Your task to perform on an android device: clear all cookies in the chrome app Image 0: 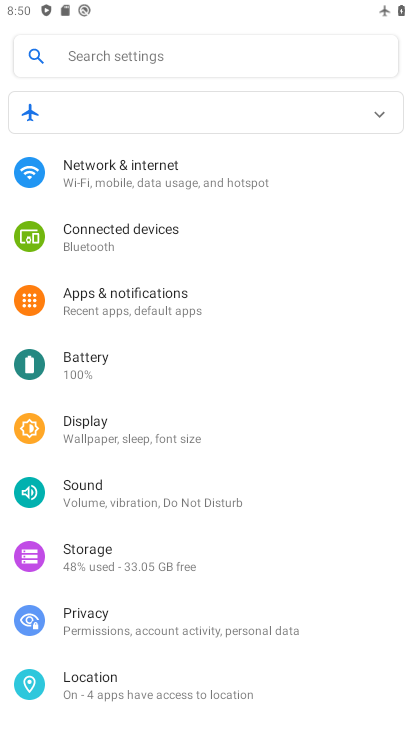
Step 0: press home button
Your task to perform on an android device: clear all cookies in the chrome app Image 1: 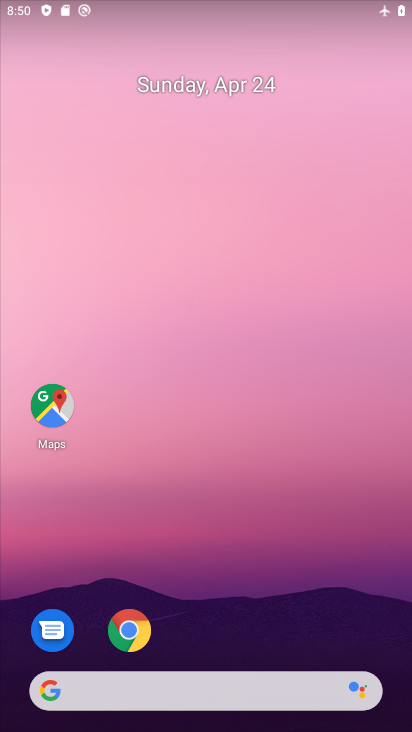
Step 1: click (123, 630)
Your task to perform on an android device: clear all cookies in the chrome app Image 2: 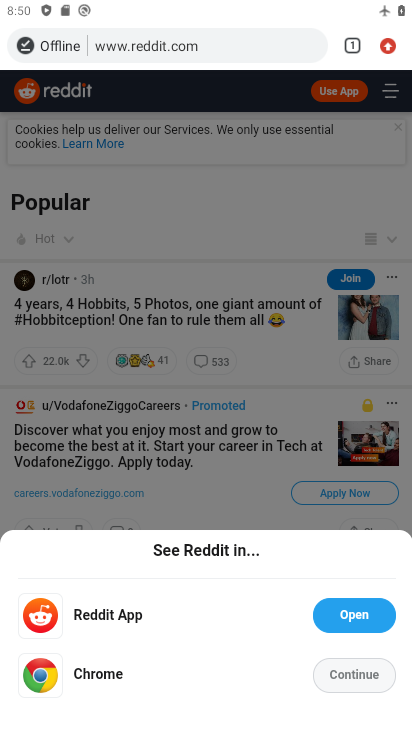
Step 2: click (388, 44)
Your task to perform on an android device: clear all cookies in the chrome app Image 3: 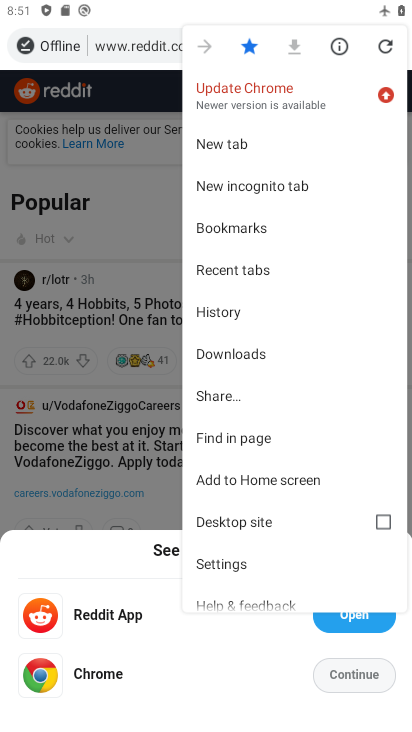
Step 3: click (253, 309)
Your task to perform on an android device: clear all cookies in the chrome app Image 4: 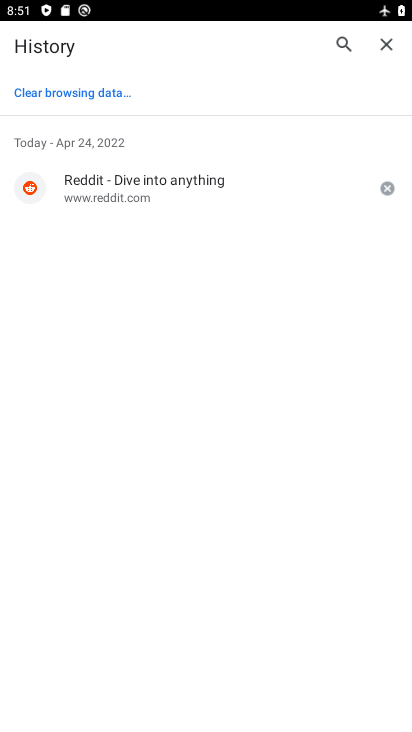
Step 4: click (112, 91)
Your task to perform on an android device: clear all cookies in the chrome app Image 5: 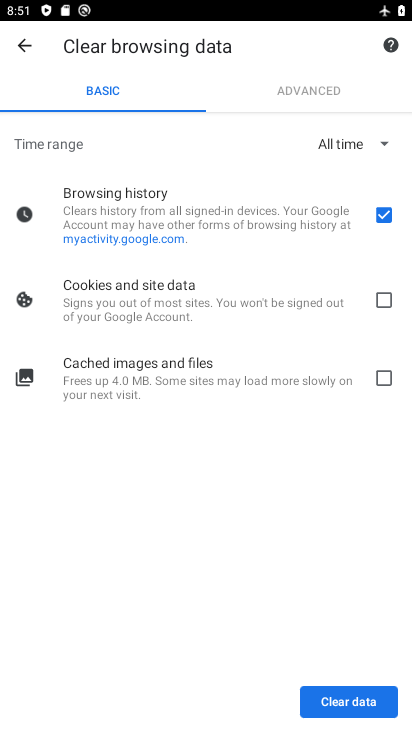
Step 5: click (385, 305)
Your task to perform on an android device: clear all cookies in the chrome app Image 6: 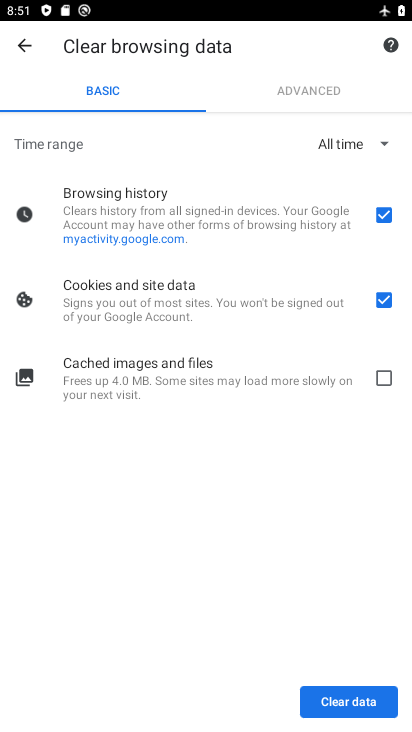
Step 6: click (383, 224)
Your task to perform on an android device: clear all cookies in the chrome app Image 7: 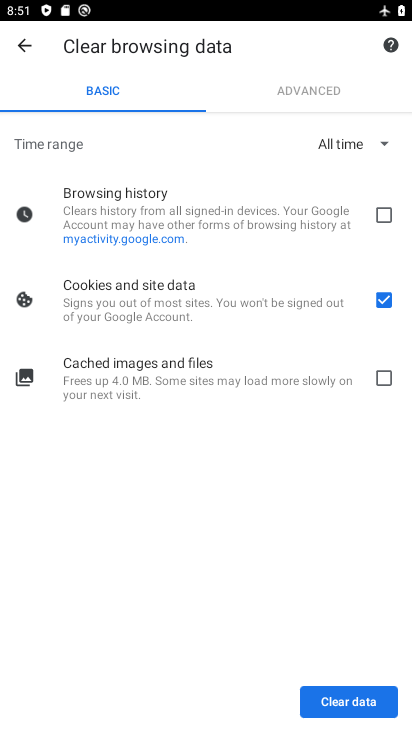
Step 7: click (350, 704)
Your task to perform on an android device: clear all cookies in the chrome app Image 8: 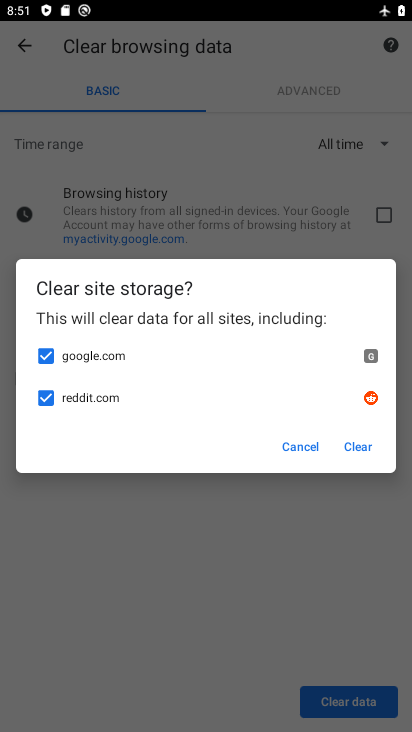
Step 8: click (347, 455)
Your task to perform on an android device: clear all cookies in the chrome app Image 9: 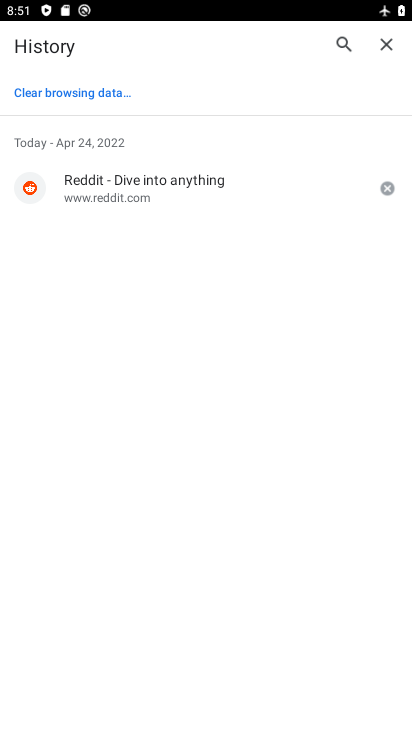
Step 9: task complete